Your task to perform on an android device: Show me recent news Image 0: 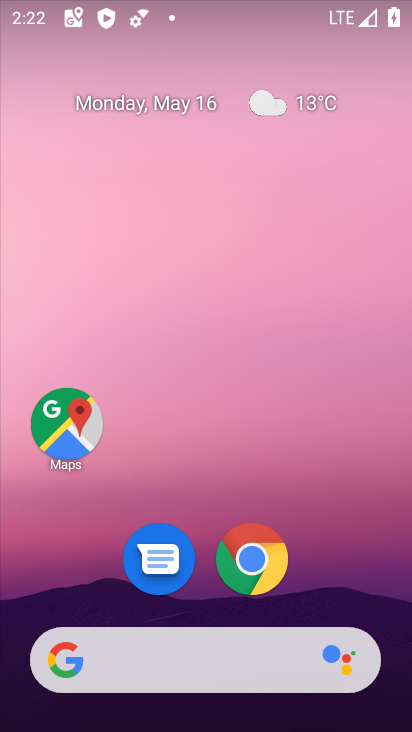
Step 0: click (162, 659)
Your task to perform on an android device: Show me recent news Image 1: 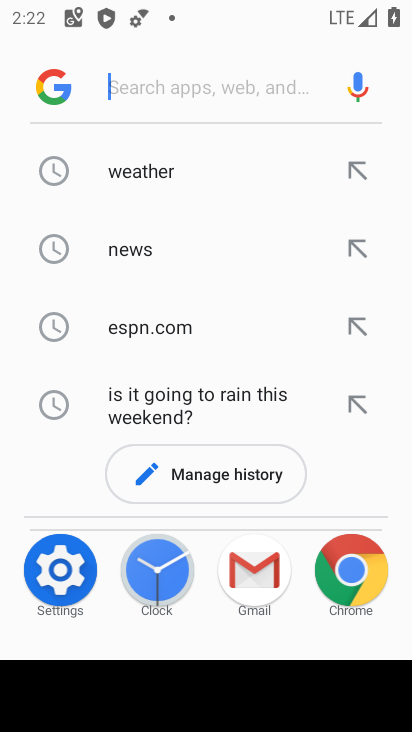
Step 1: click (125, 252)
Your task to perform on an android device: Show me recent news Image 2: 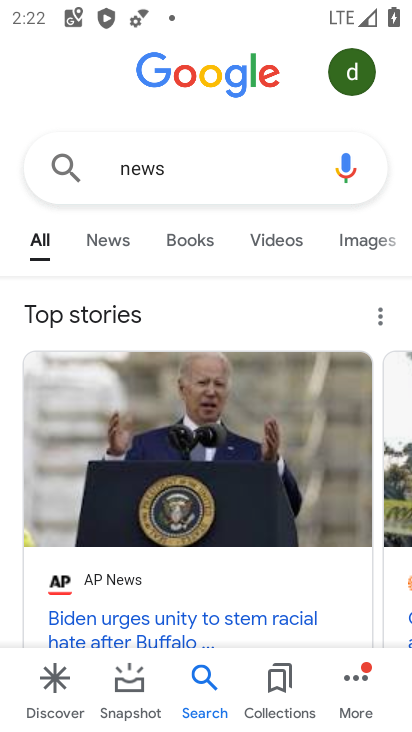
Step 2: task complete